Your task to perform on an android device: turn off location history Image 0: 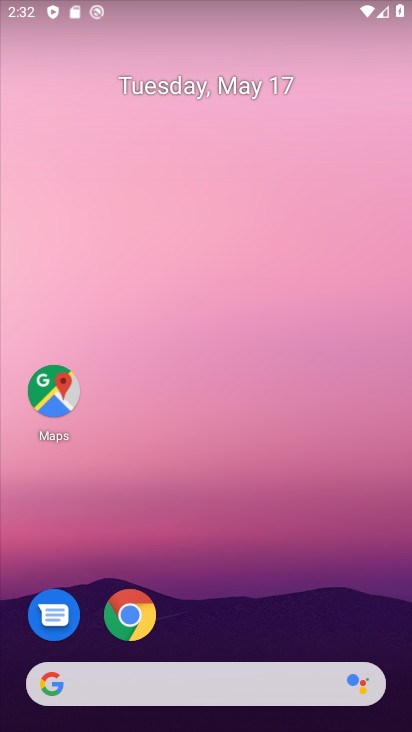
Step 0: drag from (220, 722) to (227, 177)
Your task to perform on an android device: turn off location history Image 1: 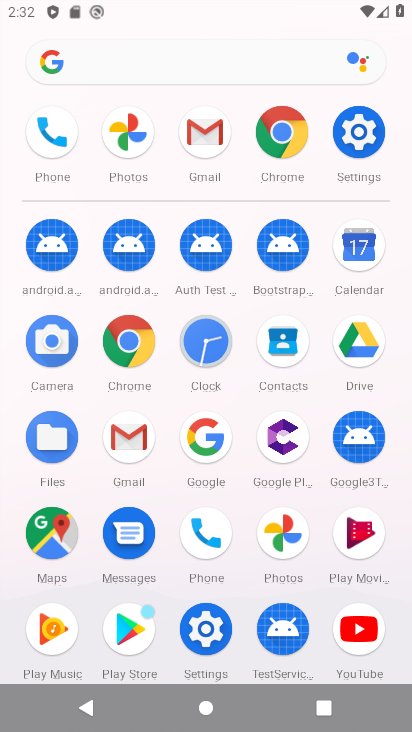
Step 1: click (359, 125)
Your task to perform on an android device: turn off location history Image 2: 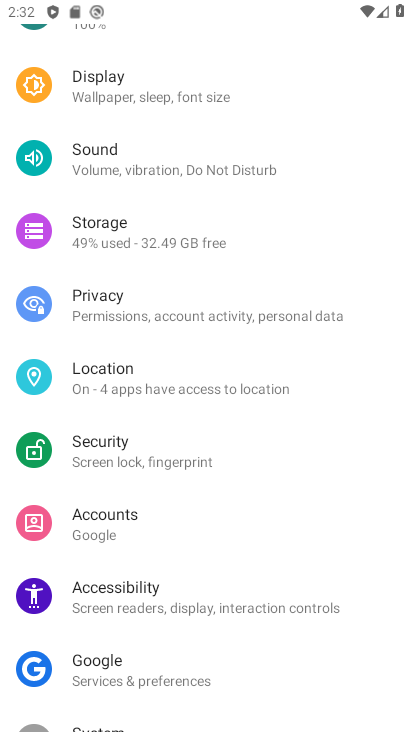
Step 2: click (126, 376)
Your task to perform on an android device: turn off location history Image 3: 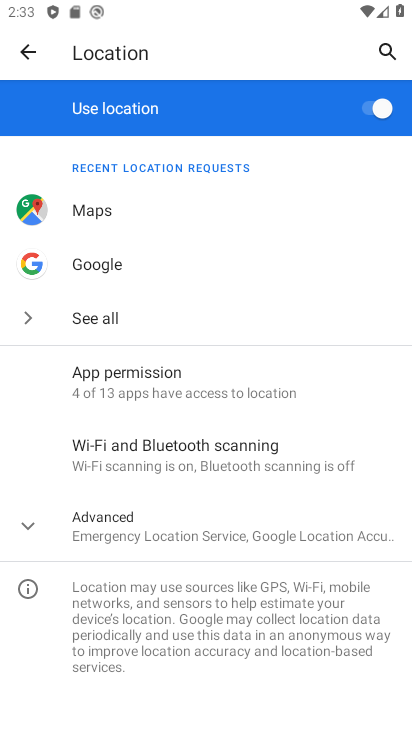
Step 3: click (116, 523)
Your task to perform on an android device: turn off location history Image 4: 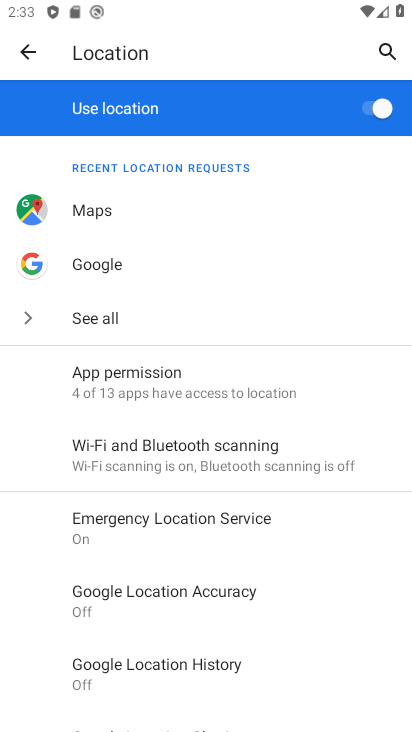
Step 4: click (185, 661)
Your task to perform on an android device: turn off location history Image 5: 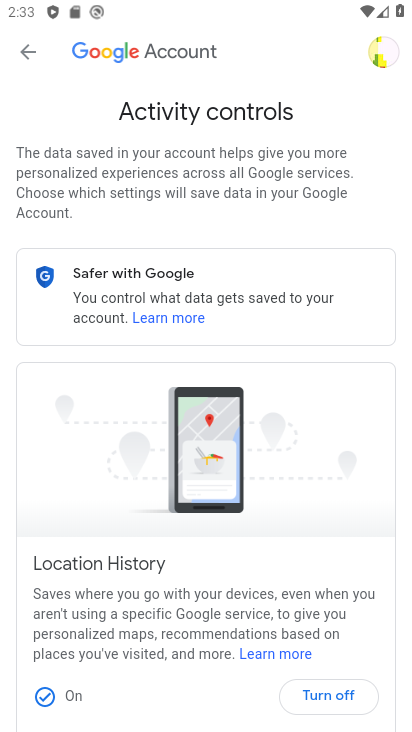
Step 5: click (355, 690)
Your task to perform on an android device: turn off location history Image 6: 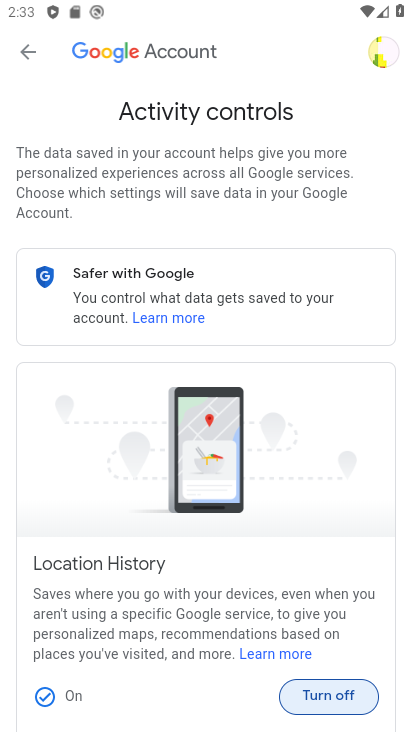
Step 6: click (326, 694)
Your task to perform on an android device: turn off location history Image 7: 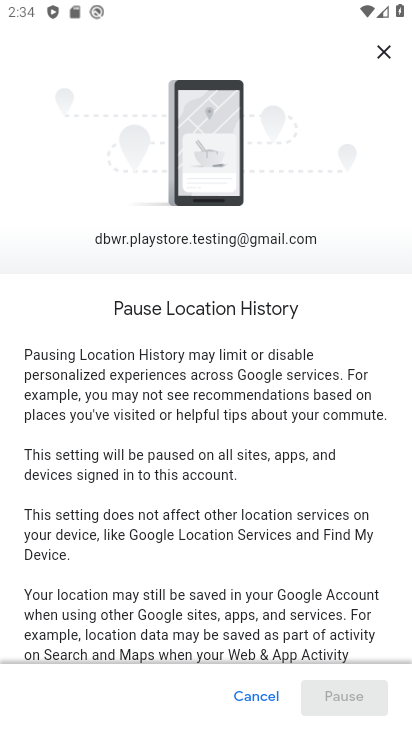
Step 7: drag from (296, 618) to (303, 183)
Your task to perform on an android device: turn off location history Image 8: 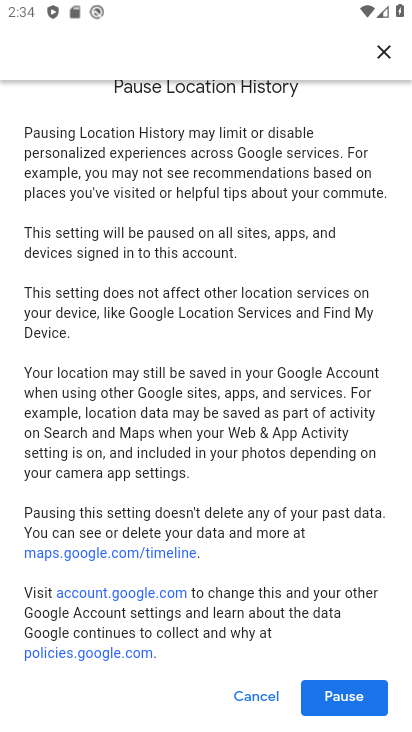
Step 8: click (353, 690)
Your task to perform on an android device: turn off location history Image 9: 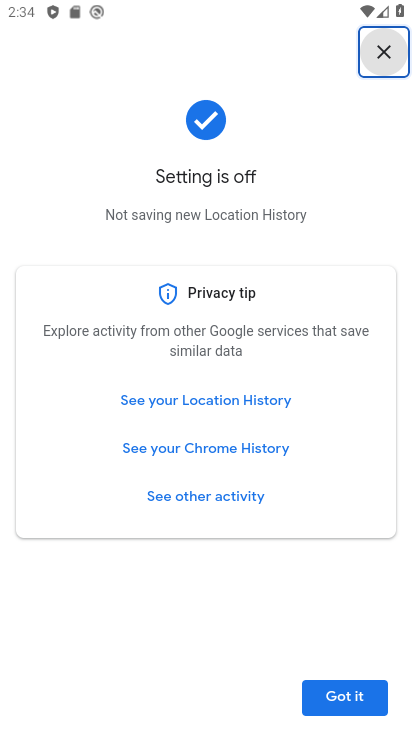
Step 9: click (341, 695)
Your task to perform on an android device: turn off location history Image 10: 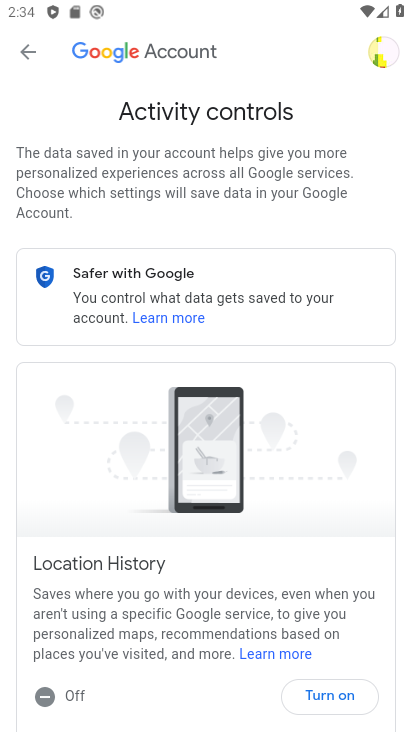
Step 10: task complete